Your task to perform on an android device: toggle notification dots Image 0: 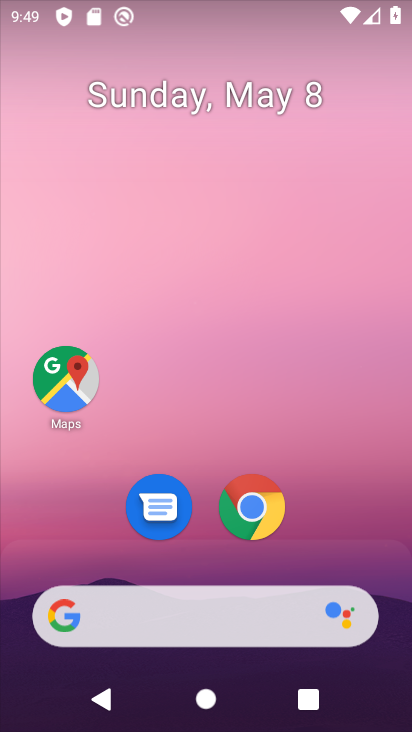
Step 0: press home button
Your task to perform on an android device: toggle notification dots Image 1: 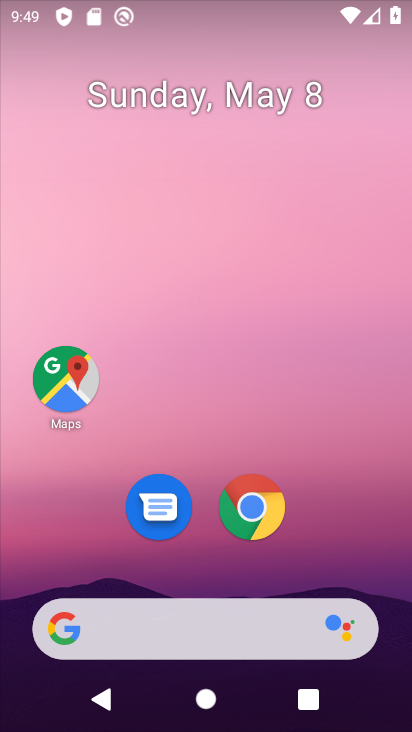
Step 1: drag from (216, 577) to (174, 92)
Your task to perform on an android device: toggle notification dots Image 2: 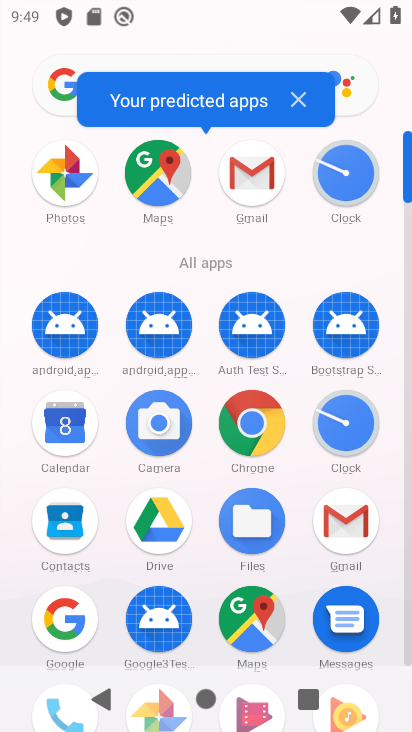
Step 2: drag from (203, 574) to (192, 192)
Your task to perform on an android device: toggle notification dots Image 3: 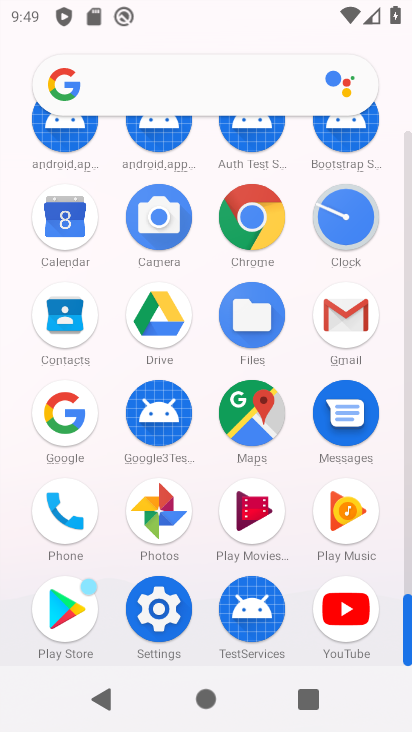
Step 3: click (156, 601)
Your task to perform on an android device: toggle notification dots Image 4: 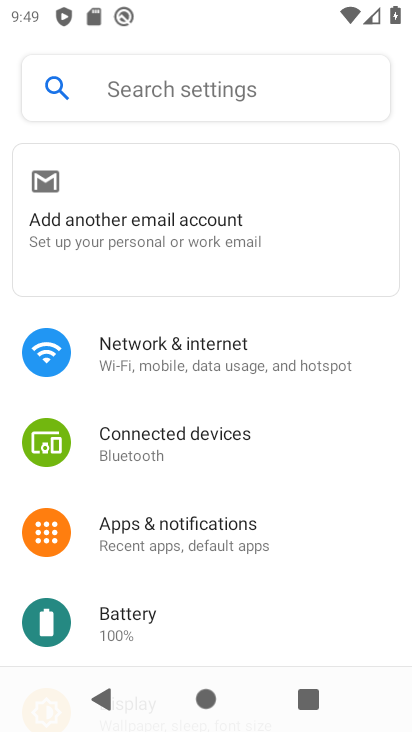
Step 4: click (165, 526)
Your task to perform on an android device: toggle notification dots Image 5: 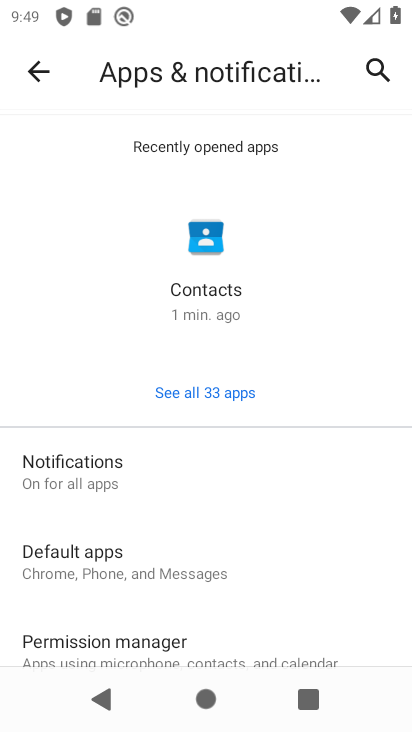
Step 5: click (143, 469)
Your task to perform on an android device: toggle notification dots Image 6: 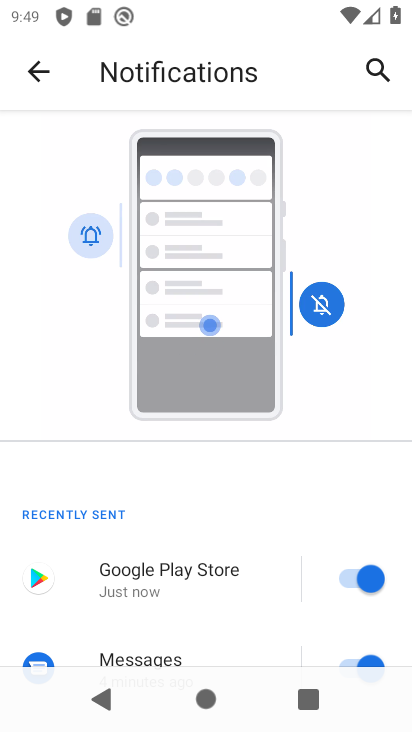
Step 6: drag from (207, 630) to (200, 197)
Your task to perform on an android device: toggle notification dots Image 7: 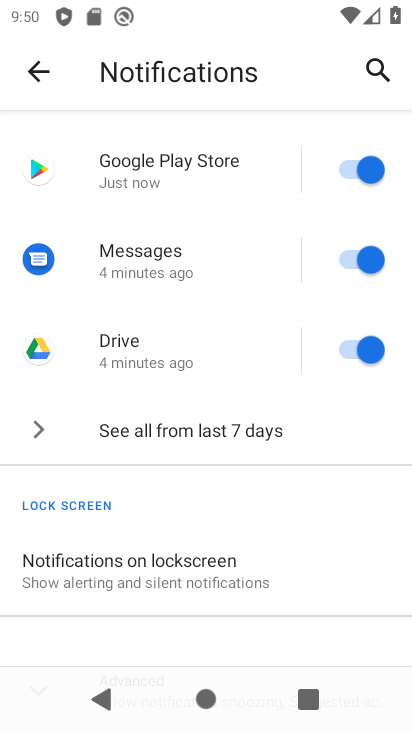
Step 7: drag from (200, 607) to (180, 197)
Your task to perform on an android device: toggle notification dots Image 8: 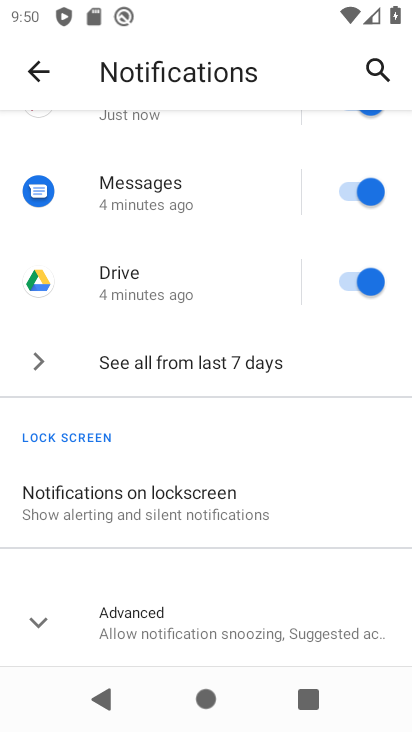
Step 8: click (40, 619)
Your task to perform on an android device: toggle notification dots Image 9: 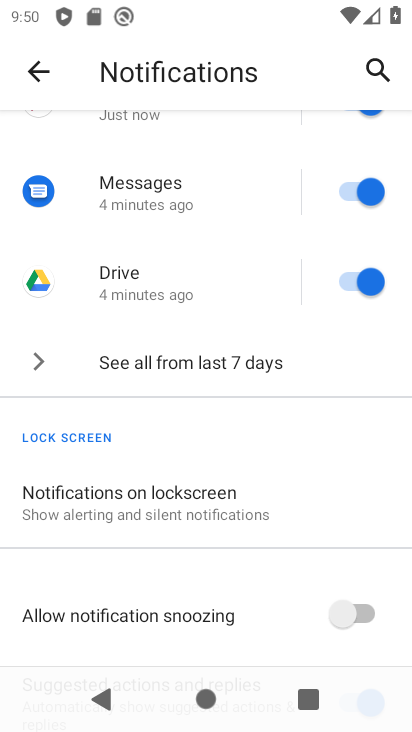
Step 9: task complete